Your task to perform on an android device: turn on sleep mode Image 0: 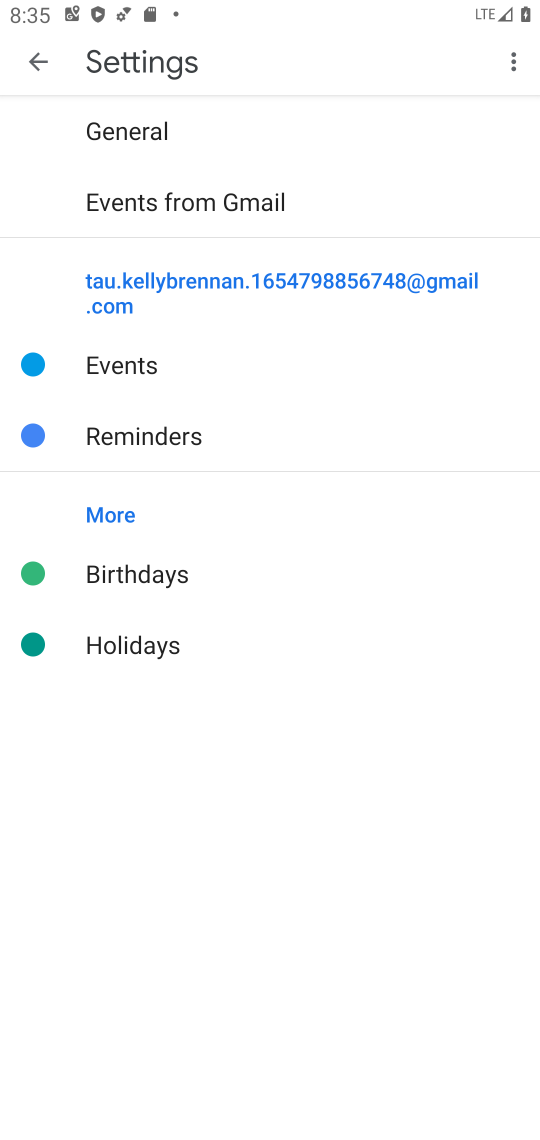
Step 0: press home button
Your task to perform on an android device: turn on sleep mode Image 1: 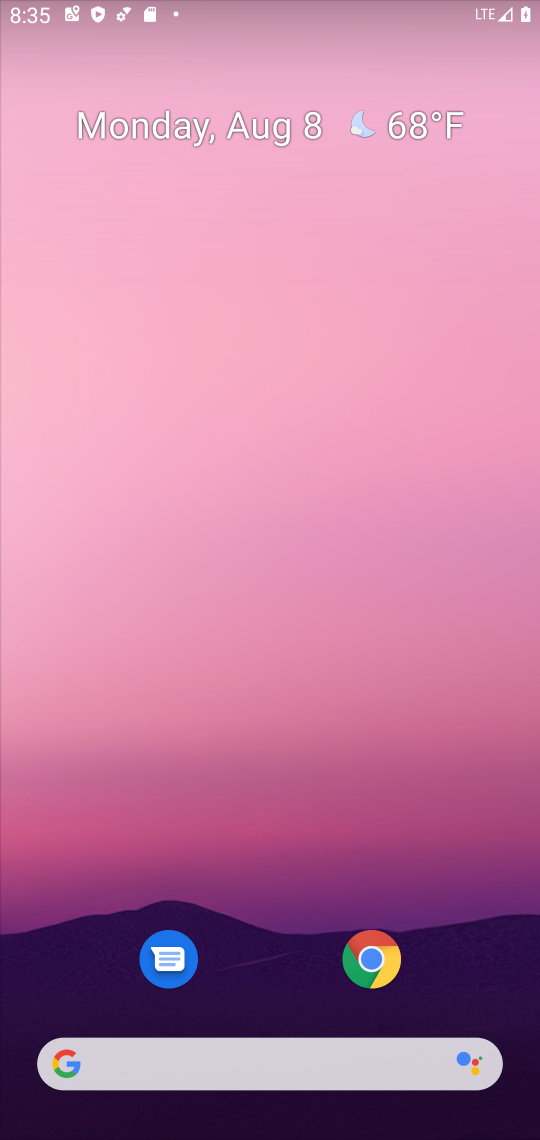
Step 1: drag from (472, 842) to (219, 6)
Your task to perform on an android device: turn on sleep mode Image 2: 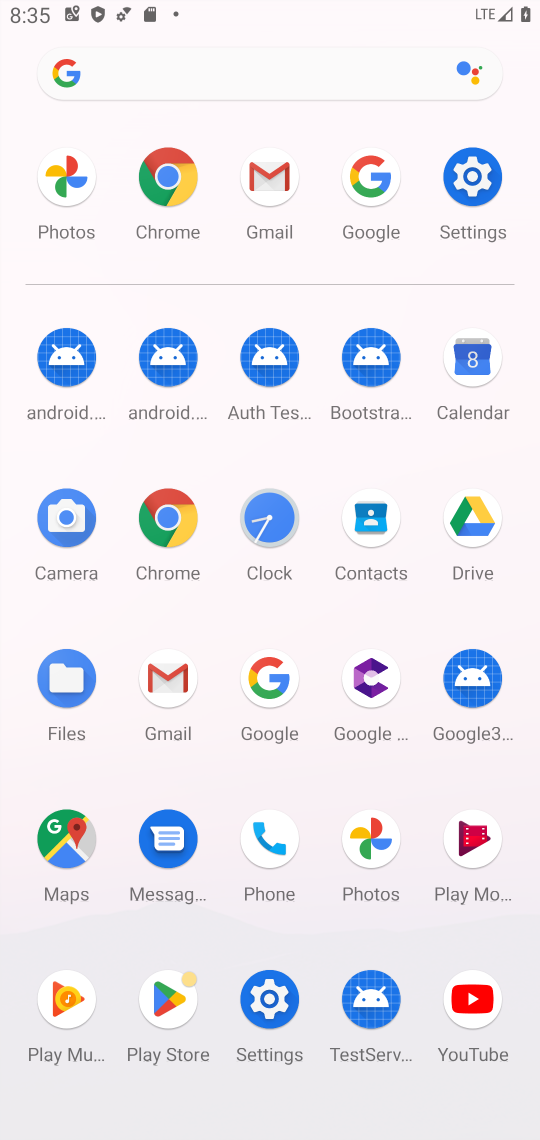
Step 2: click (268, 1000)
Your task to perform on an android device: turn on sleep mode Image 3: 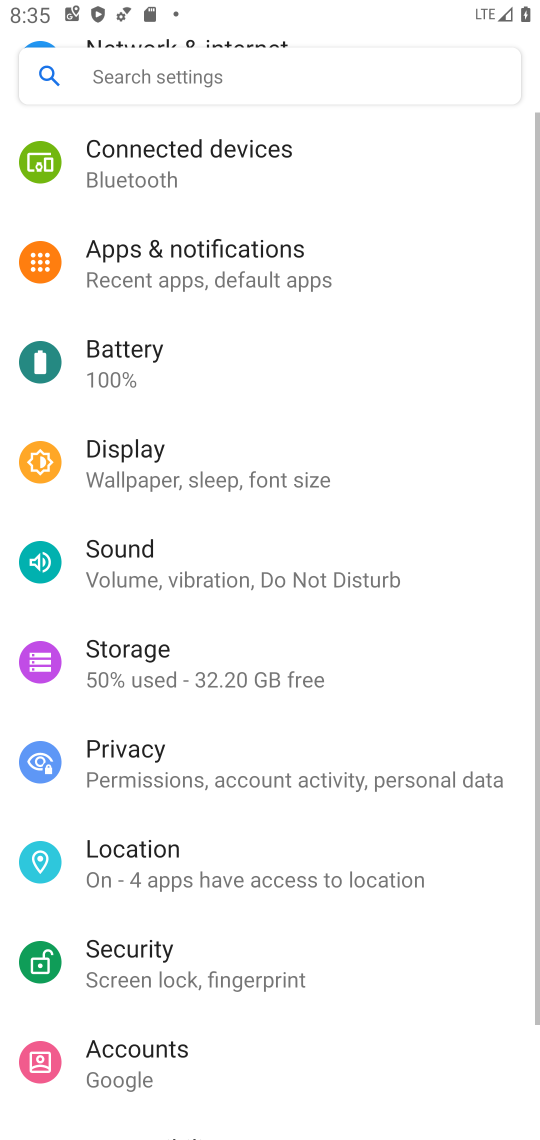
Step 3: task complete